Your task to perform on an android device: What's on my calendar tomorrow? Image 0: 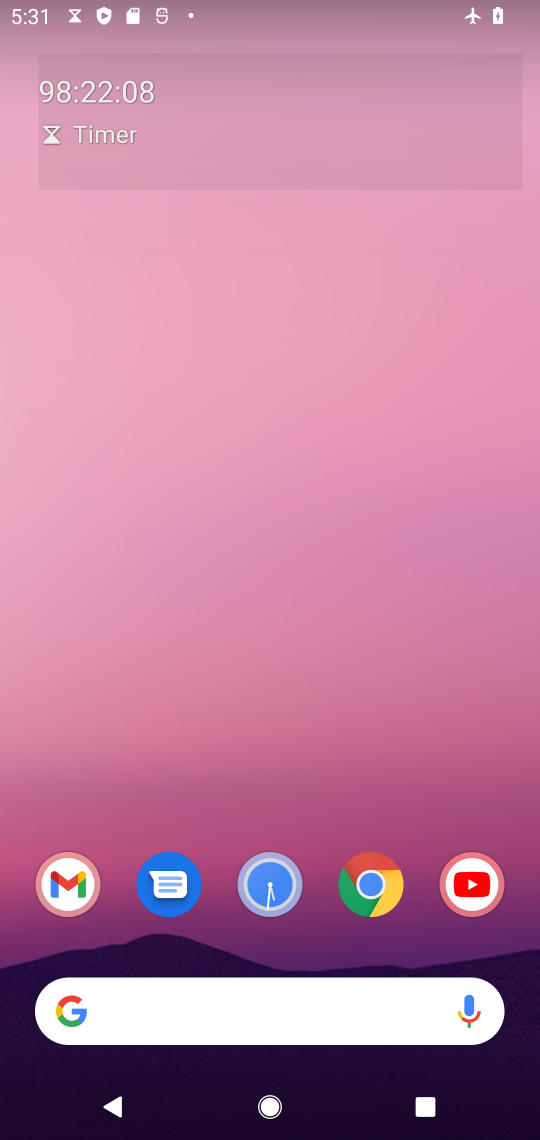
Step 0: drag from (325, 857) to (332, 542)
Your task to perform on an android device: What's on my calendar tomorrow? Image 1: 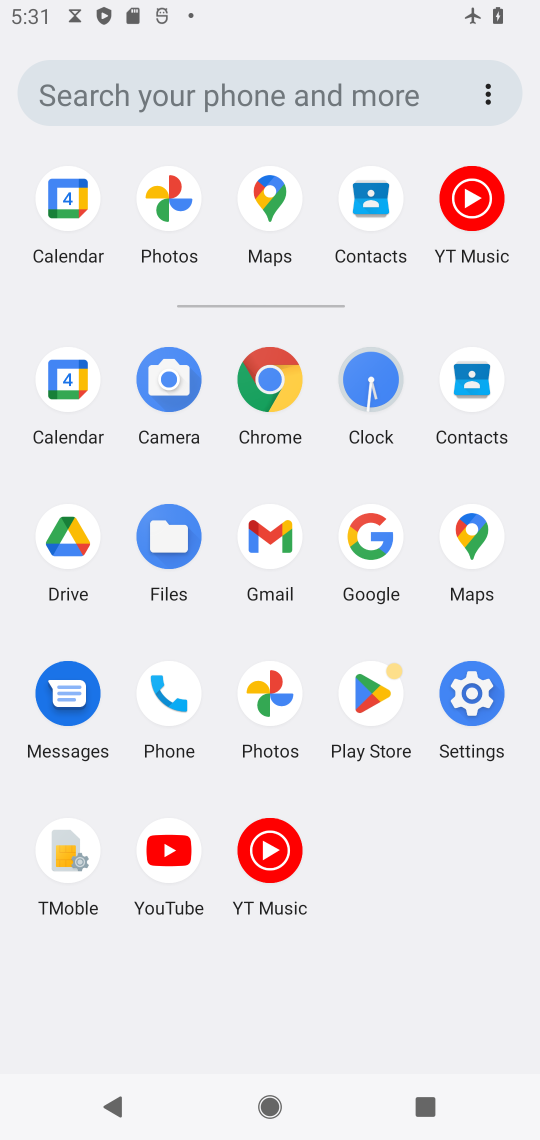
Step 1: click (43, 374)
Your task to perform on an android device: What's on my calendar tomorrow? Image 2: 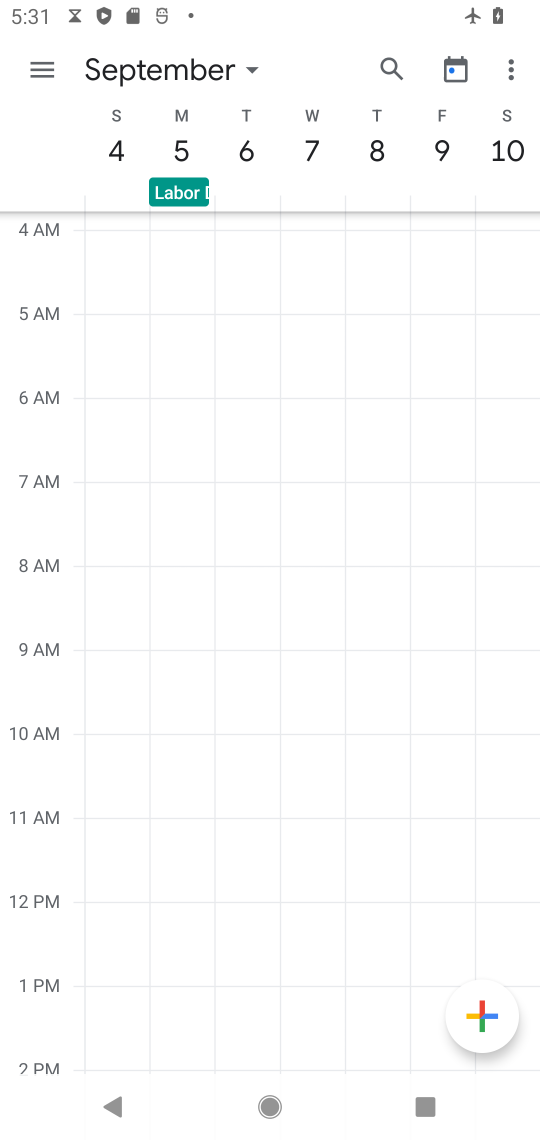
Step 2: drag from (70, 144) to (507, 200)
Your task to perform on an android device: What's on my calendar tomorrow? Image 3: 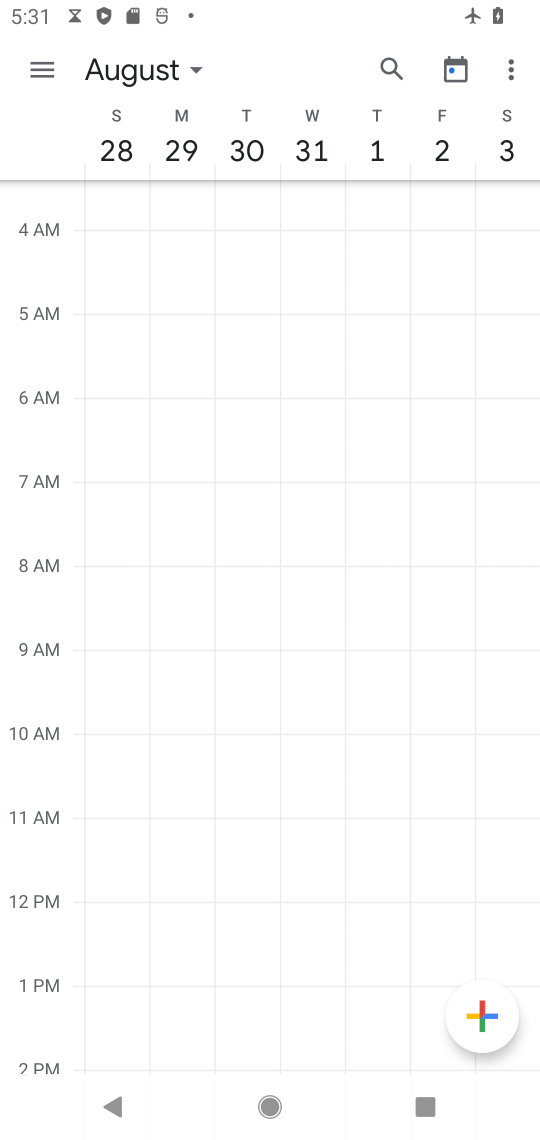
Step 3: drag from (73, 149) to (510, 195)
Your task to perform on an android device: What's on my calendar tomorrow? Image 4: 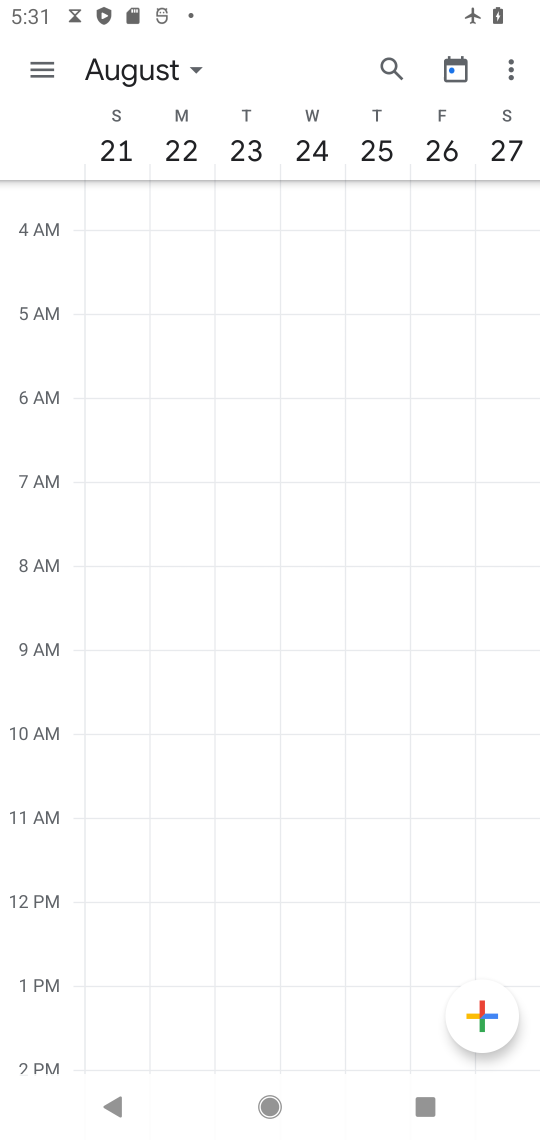
Step 4: drag from (133, 146) to (529, 204)
Your task to perform on an android device: What's on my calendar tomorrow? Image 5: 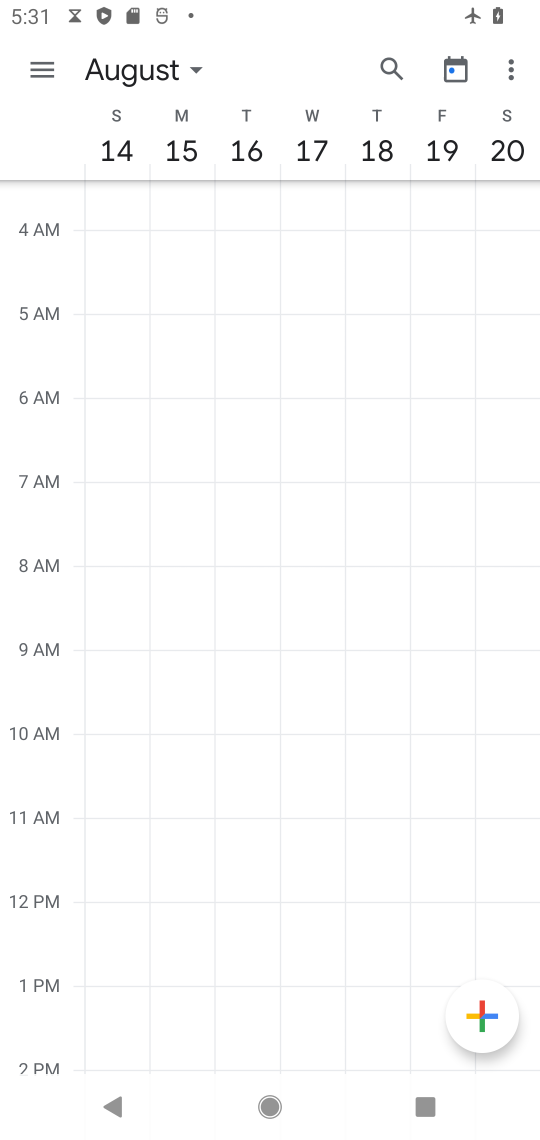
Step 5: drag from (105, 116) to (529, 177)
Your task to perform on an android device: What's on my calendar tomorrow? Image 6: 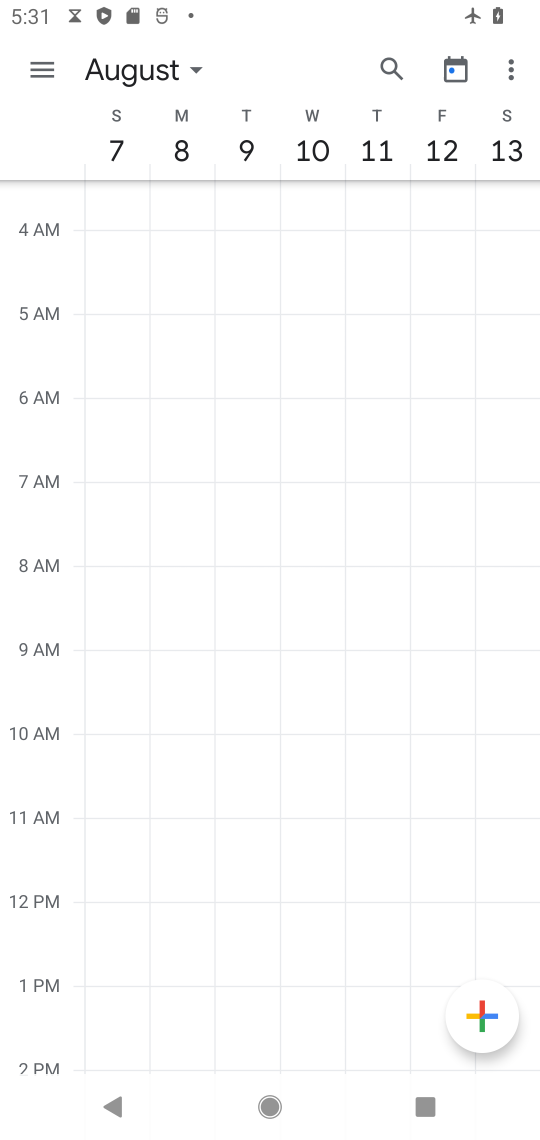
Step 6: drag from (194, 152) to (518, 175)
Your task to perform on an android device: What's on my calendar tomorrow? Image 7: 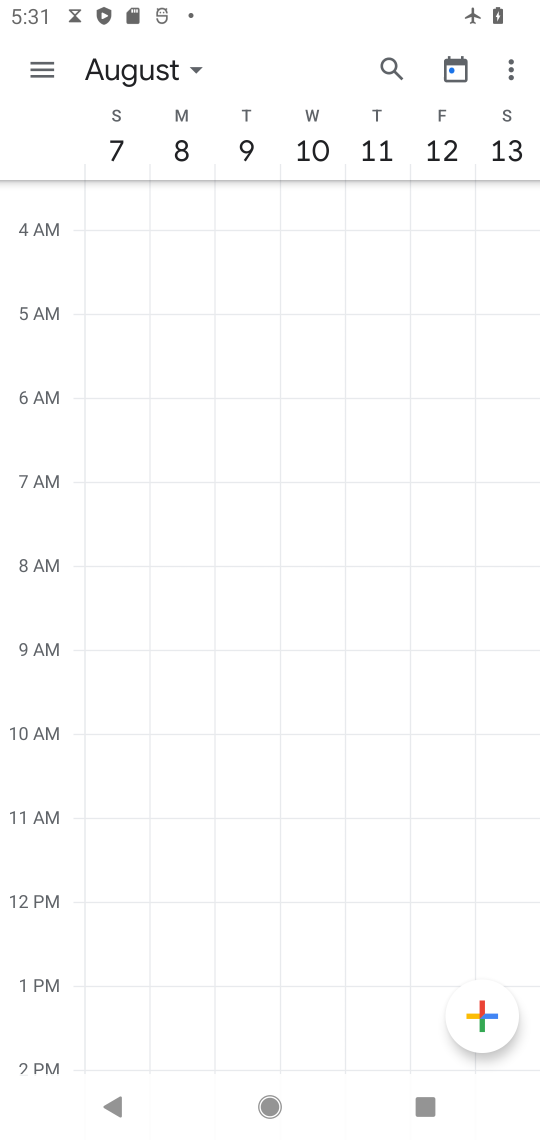
Step 7: click (493, 146)
Your task to perform on an android device: What's on my calendar tomorrow? Image 8: 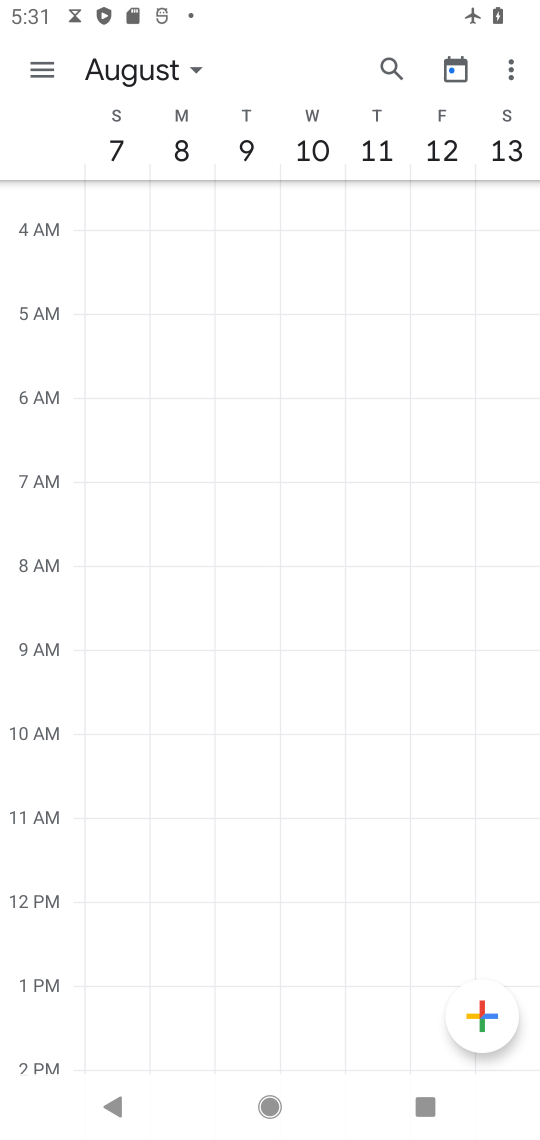
Step 8: drag from (128, 140) to (347, 163)
Your task to perform on an android device: What's on my calendar tomorrow? Image 9: 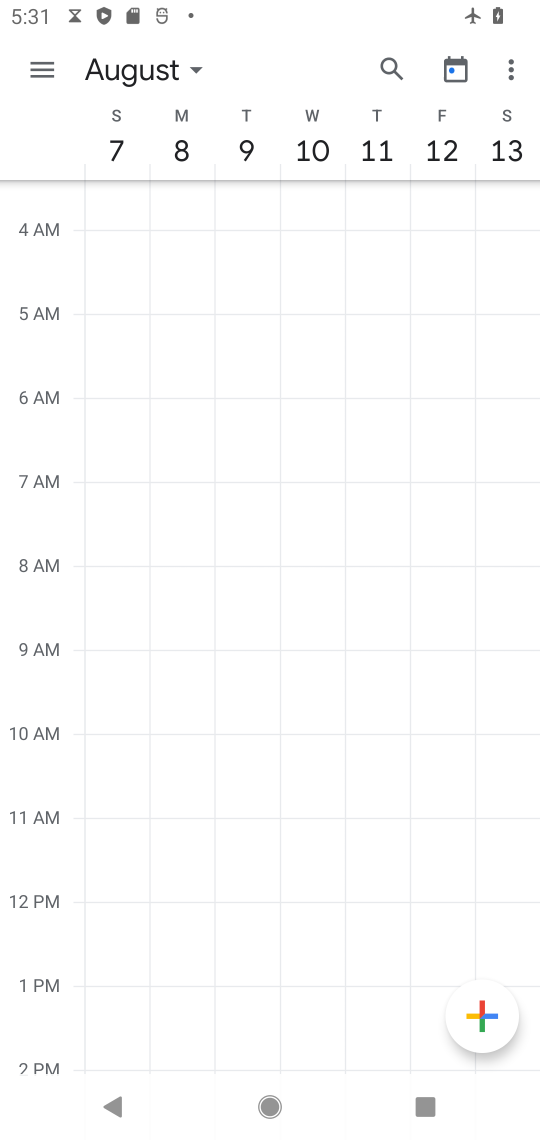
Step 9: click (162, 149)
Your task to perform on an android device: What's on my calendar tomorrow? Image 10: 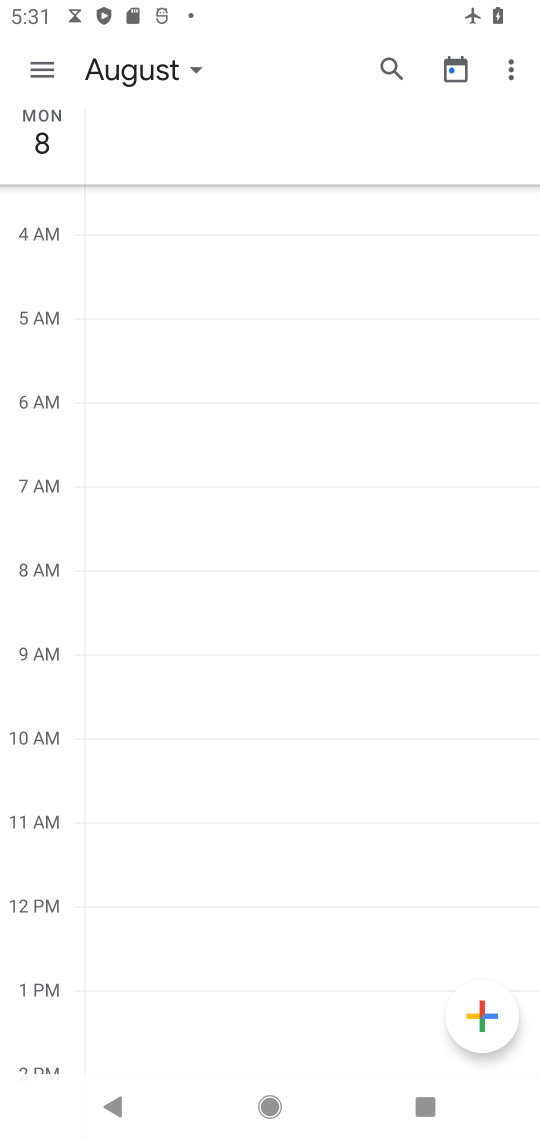
Step 10: press back button
Your task to perform on an android device: What's on my calendar tomorrow? Image 11: 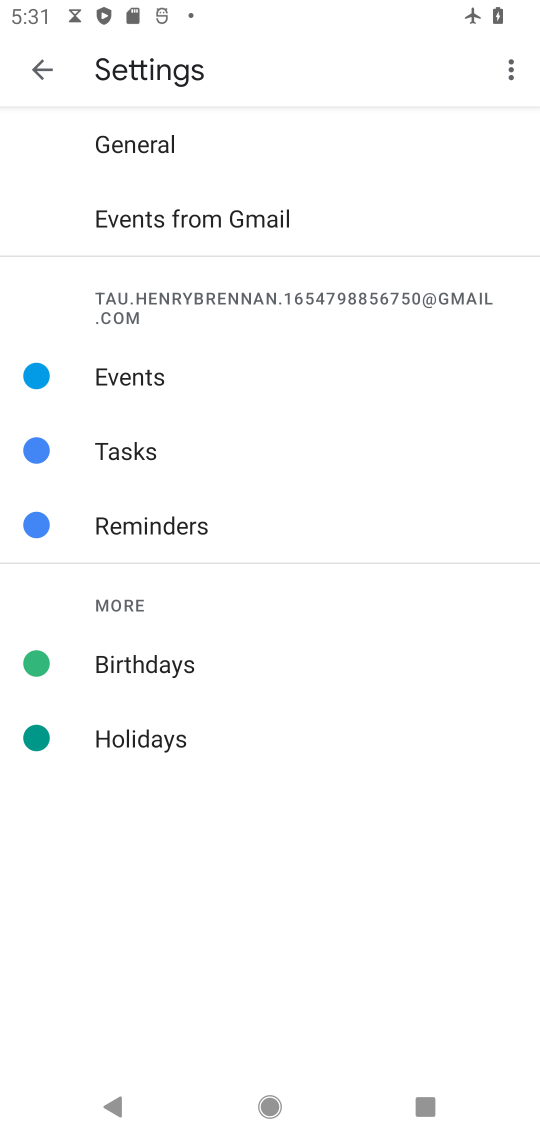
Step 11: click (60, 45)
Your task to perform on an android device: What's on my calendar tomorrow? Image 12: 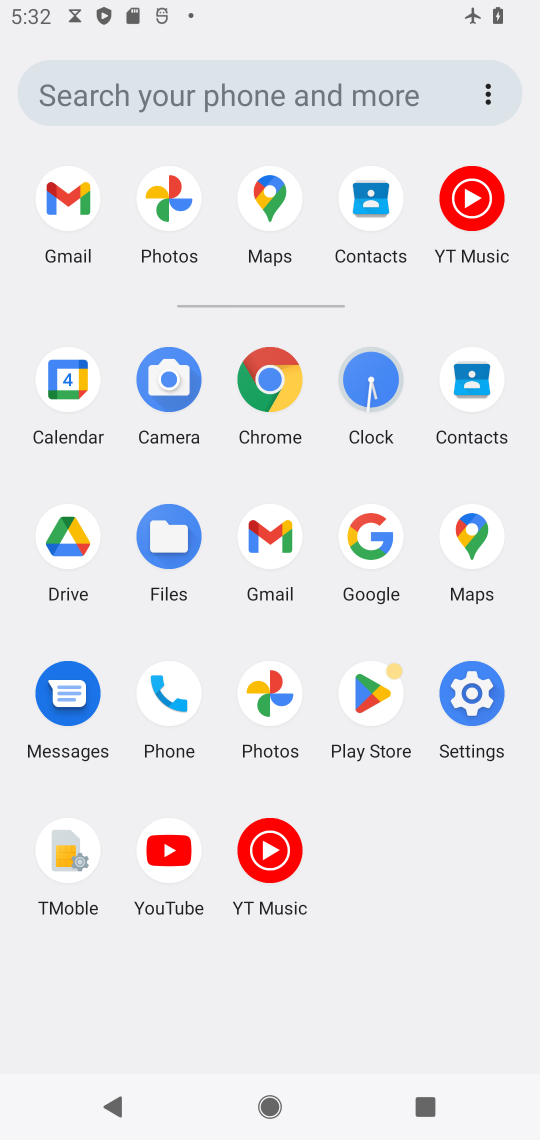
Step 12: click (62, 392)
Your task to perform on an android device: What's on my calendar tomorrow? Image 13: 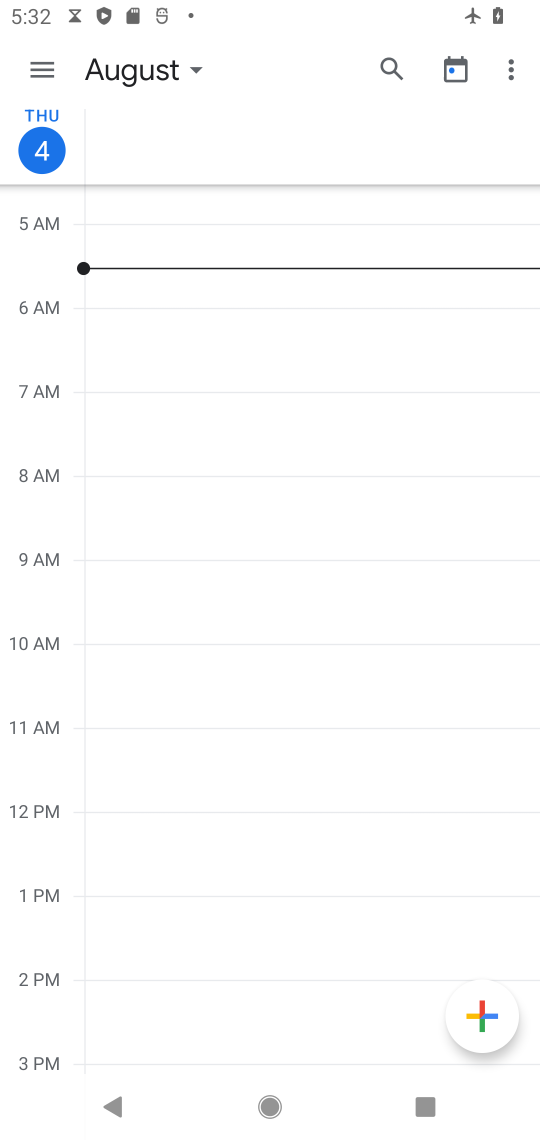
Step 13: click (49, 72)
Your task to perform on an android device: What's on my calendar tomorrow? Image 14: 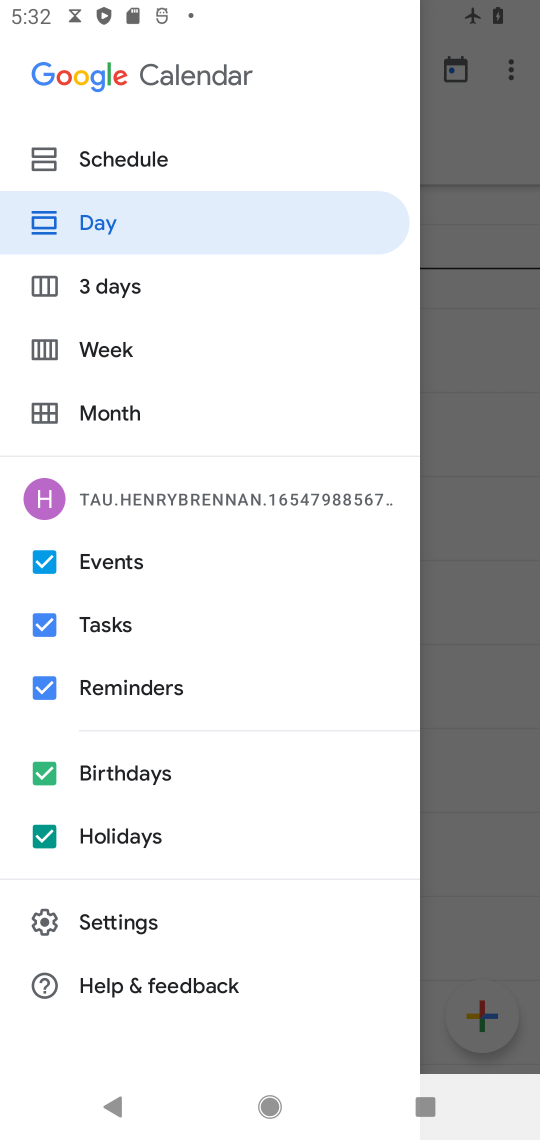
Step 14: click (123, 402)
Your task to perform on an android device: What's on my calendar tomorrow? Image 15: 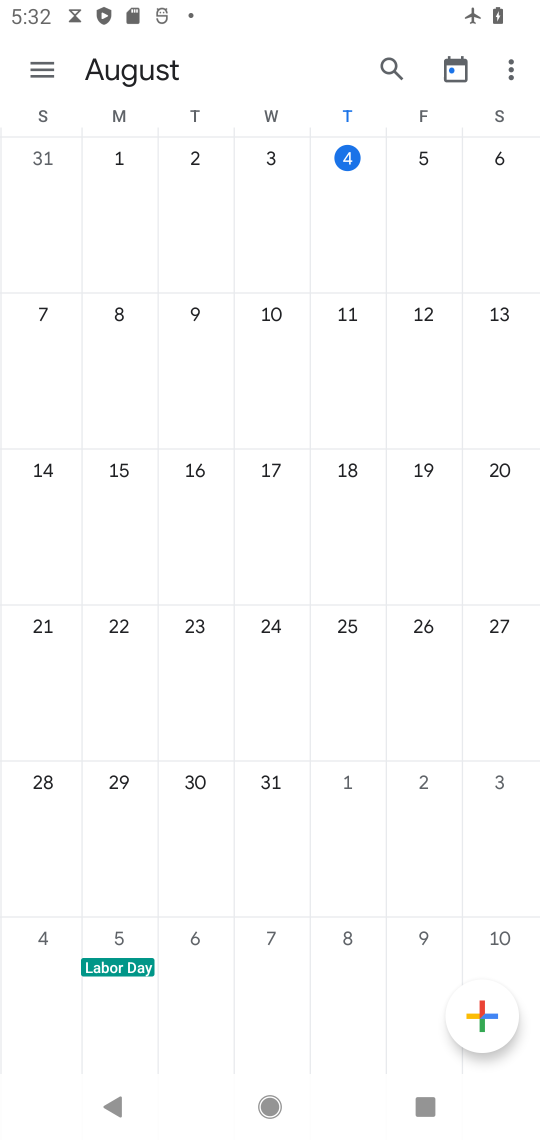
Step 15: click (431, 177)
Your task to perform on an android device: What's on my calendar tomorrow? Image 16: 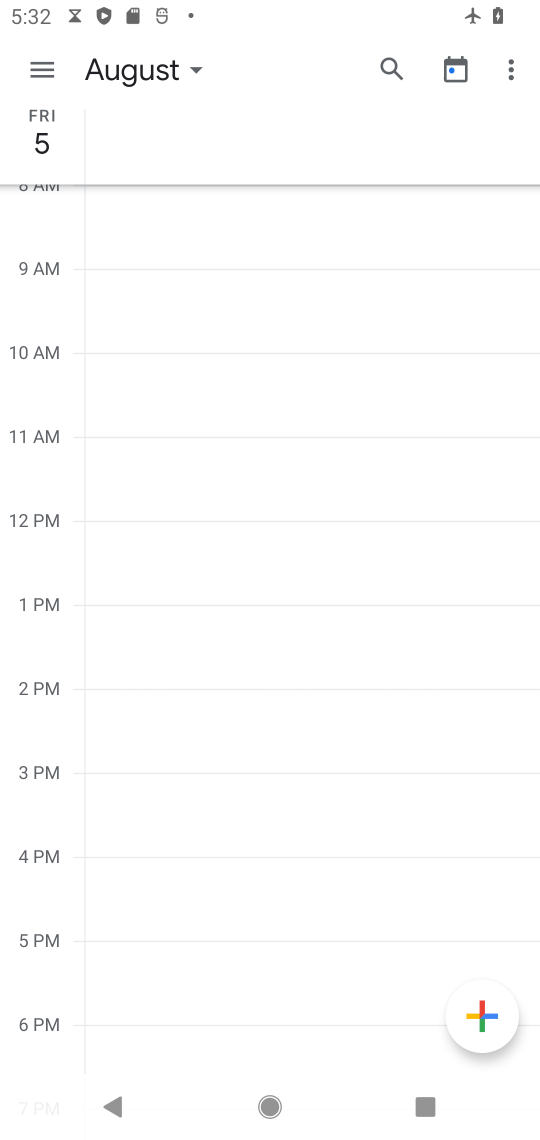
Step 16: task complete